Your task to perform on an android device: Go to battery settings Image 0: 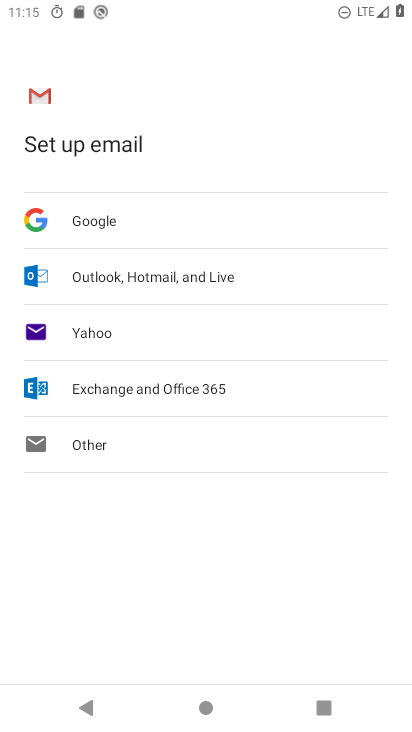
Step 0: press back button
Your task to perform on an android device: Go to battery settings Image 1: 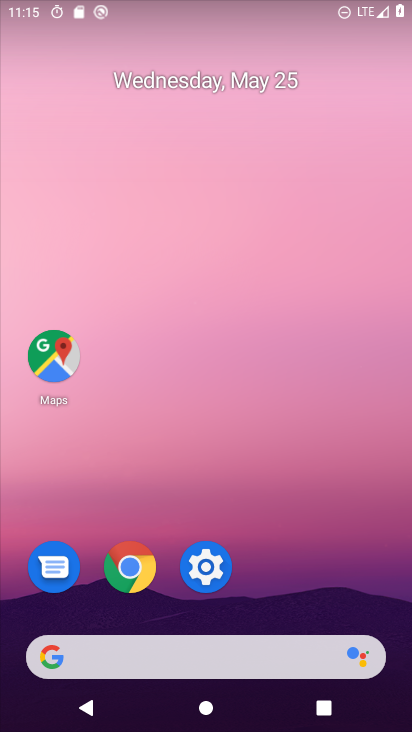
Step 1: drag from (275, 595) to (193, 67)
Your task to perform on an android device: Go to battery settings Image 2: 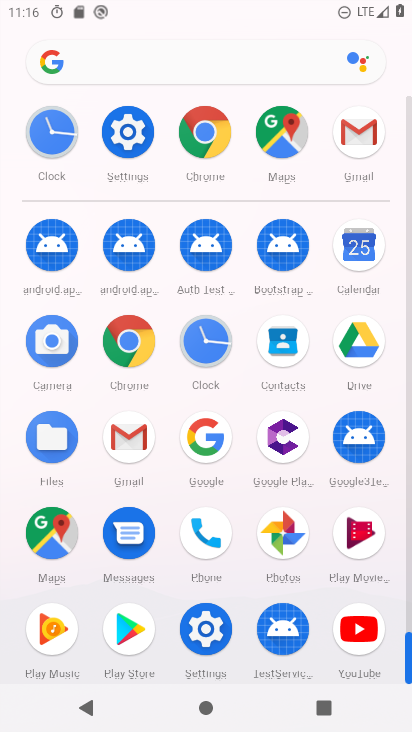
Step 2: click (203, 631)
Your task to perform on an android device: Go to battery settings Image 3: 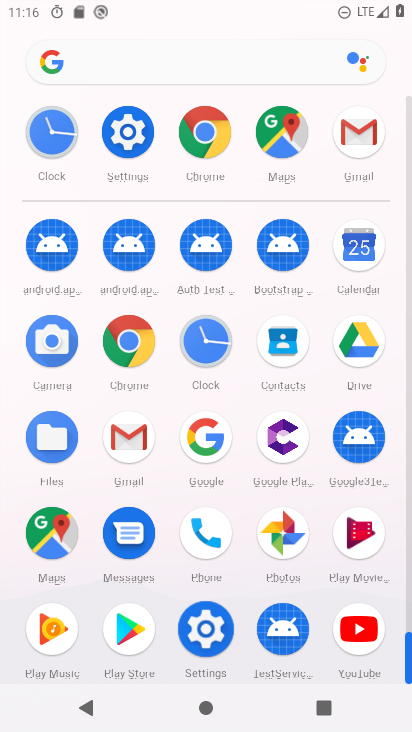
Step 3: click (203, 631)
Your task to perform on an android device: Go to battery settings Image 4: 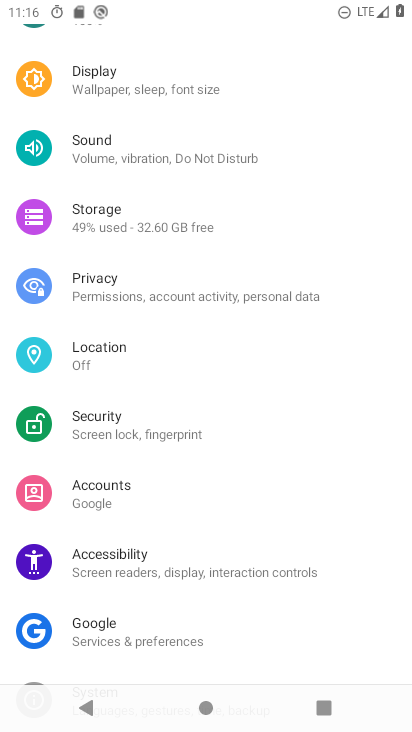
Step 4: drag from (82, 152) to (168, 676)
Your task to perform on an android device: Go to battery settings Image 5: 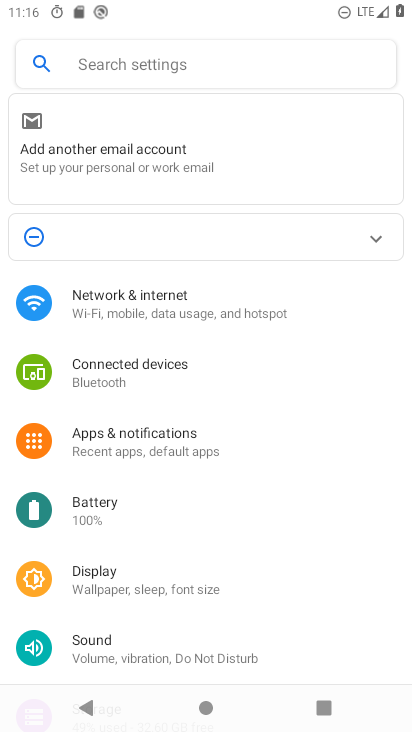
Step 5: click (92, 498)
Your task to perform on an android device: Go to battery settings Image 6: 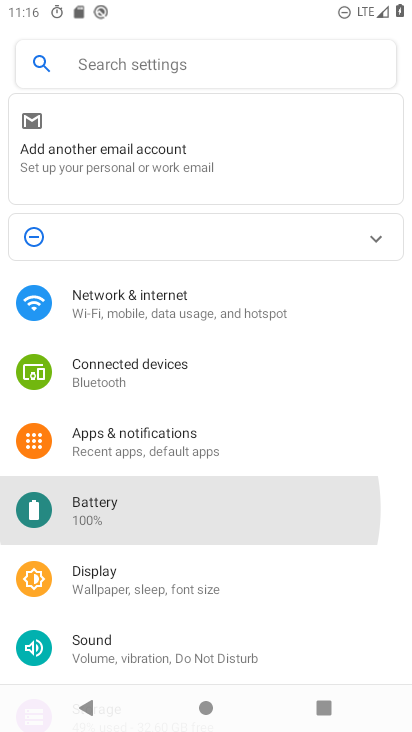
Step 6: click (91, 500)
Your task to perform on an android device: Go to battery settings Image 7: 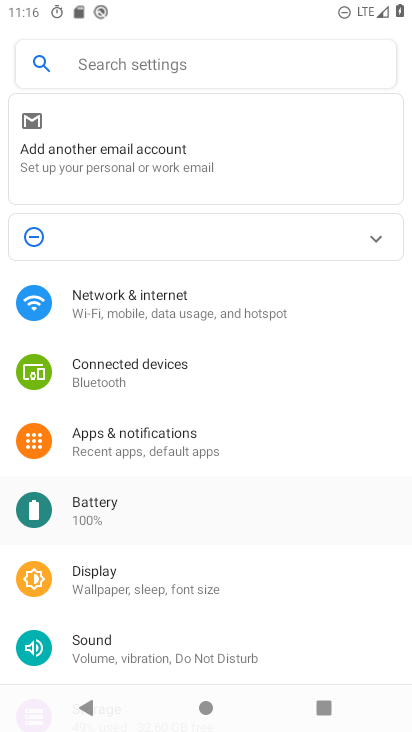
Step 7: click (92, 500)
Your task to perform on an android device: Go to battery settings Image 8: 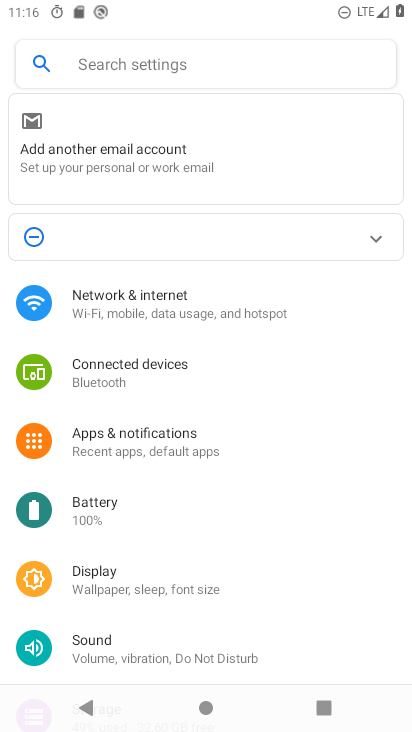
Step 8: click (93, 499)
Your task to perform on an android device: Go to battery settings Image 9: 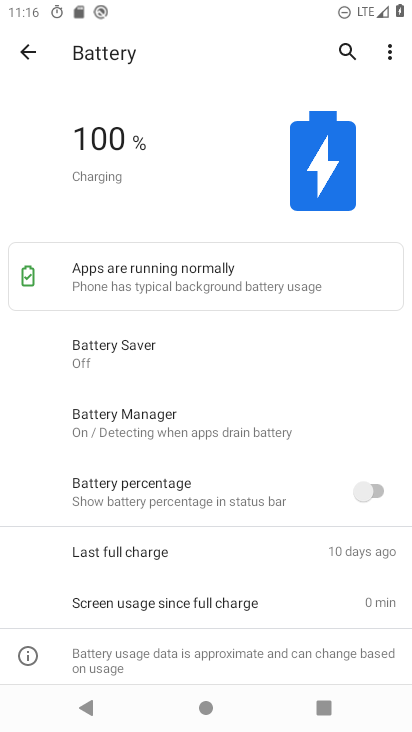
Step 9: drag from (175, 466) to (151, 224)
Your task to perform on an android device: Go to battery settings Image 10: 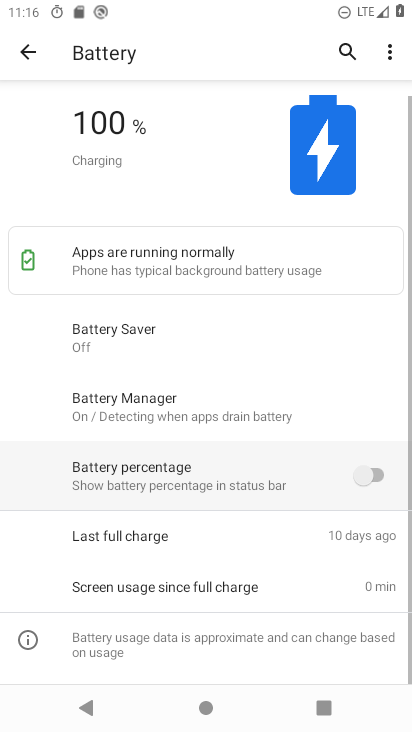
Step 10: drag from (180, 496) to (155, 293)
Your task to perform on an android device: Go to battery settings Image 11: 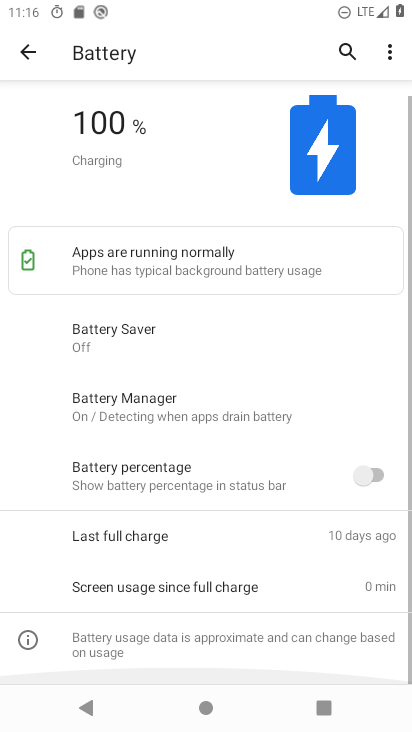
Step 11: drag from (180, 429) to (141, 240)
Your task to perform on an android device: Go to battery settings Image 12: 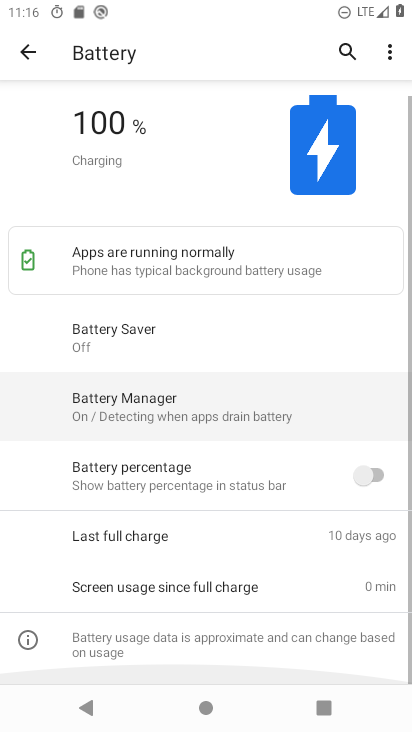
Step 12: drag from (144, 412) to (172, 157)
Your task to perform on an android device: Go to battery settings Image 13: 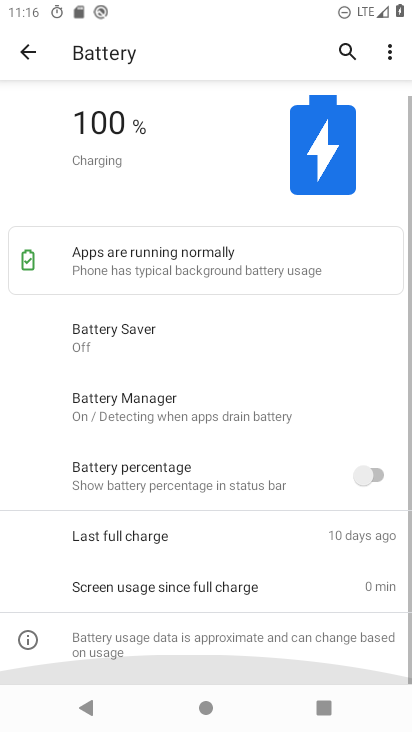
Step 13: click (191, 227)
Your task to perform on an android device: Go to battery settings Image 14: 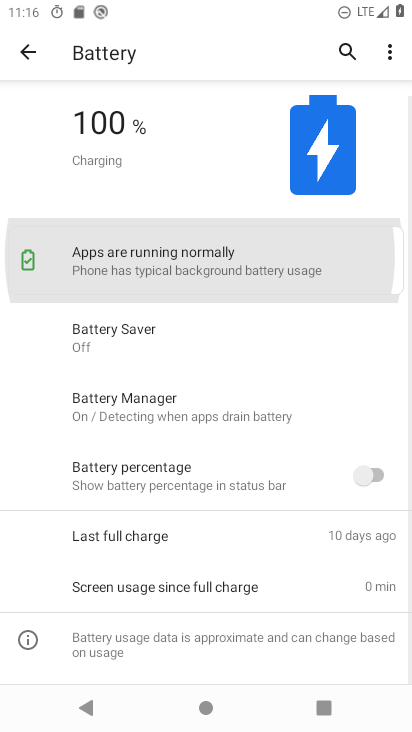
Step 14: task complete